Your task to perform on an android device: turn on data saver in the chrome app Image 0: 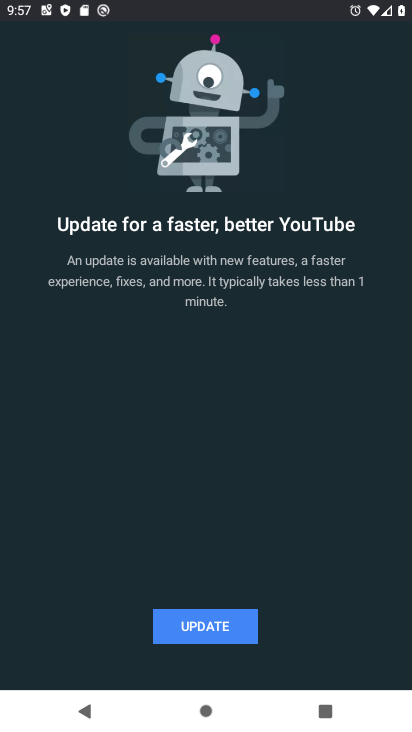
Step 0: press back button
Your task to perform on an android device: turn on data saver in the chrome app Image 1: 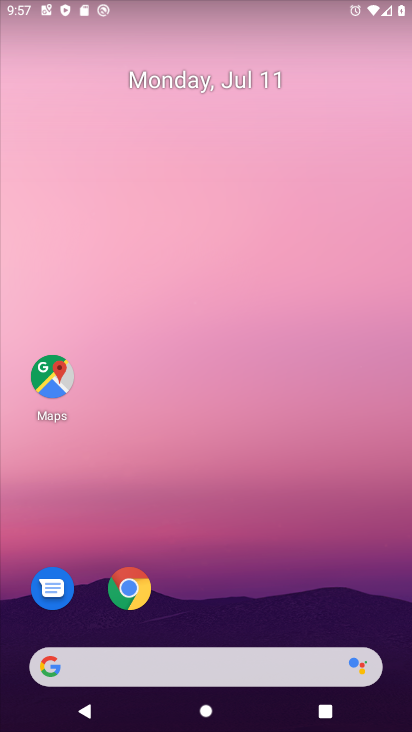
Step 1: click (128, 593)
Your task to perform on an android device: turn on data saver in the chrome app Image 2: 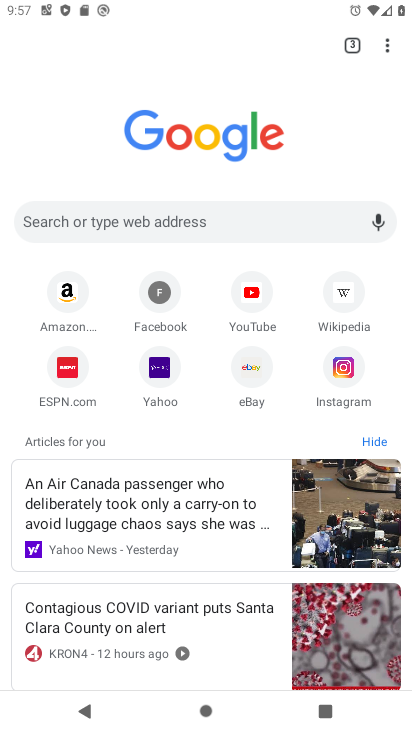
Step 2: click (395, 39)
Your task to perform on an android device: turn on data saver in the chrome app Image 3: 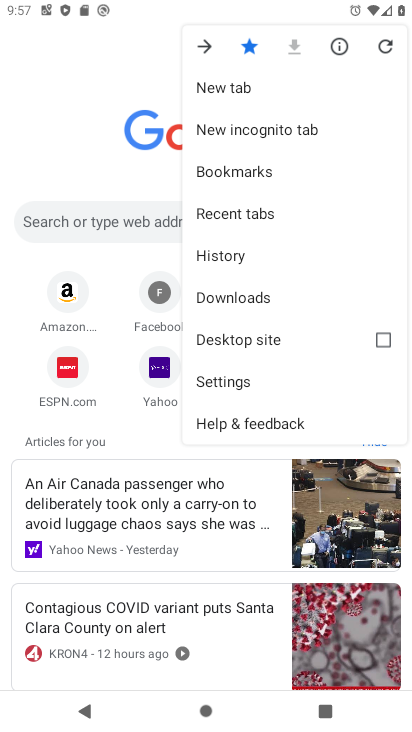
Step 3: click (224, 387)
Your task to perform on an android device: turn on data saver in the chrome app Image 4: 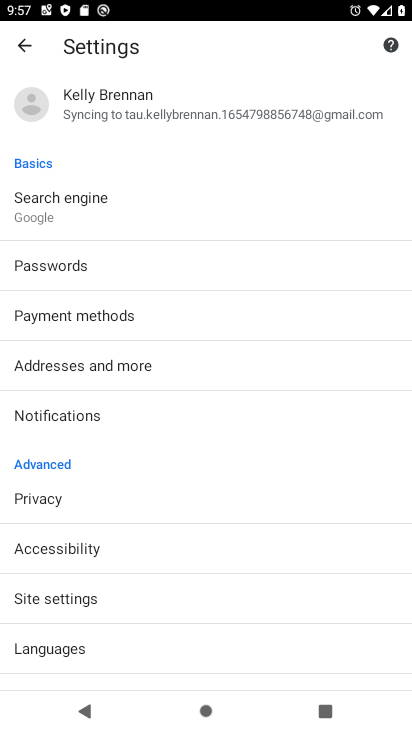
Step 4: drag from (131, 625) to (197, 190)
Your task to perform on an android device: turn on data saver in the chrome app Image 5: 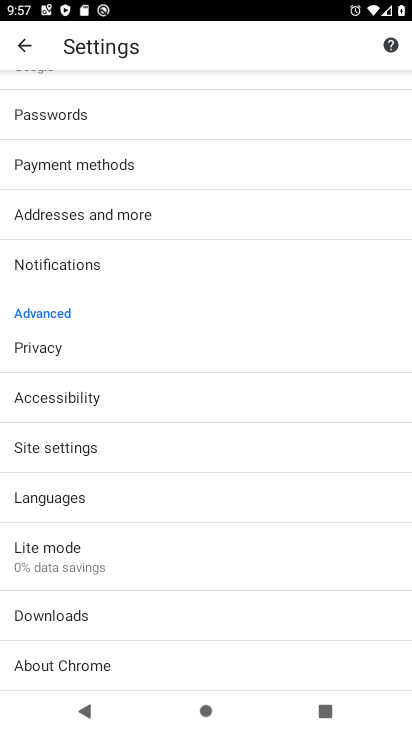
Step 5: click (123, 559)
Your task to perform on an android device: turn on data saver in the chrome app Image 6: 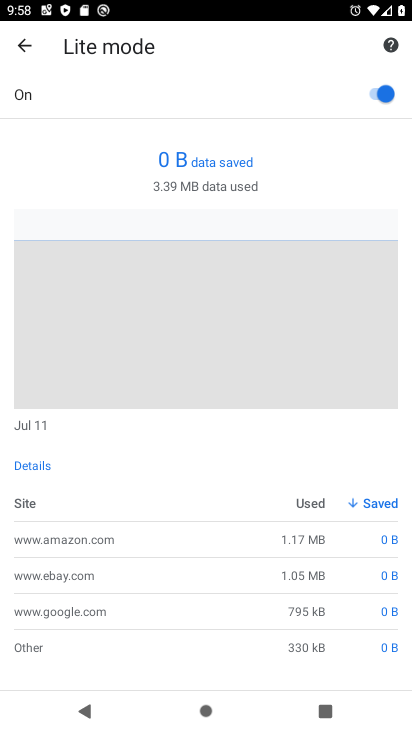
Step 6: task complete